Your task to perform on an android device: Open Google Chrome and click the shortcut for Amazon.com Image 0: 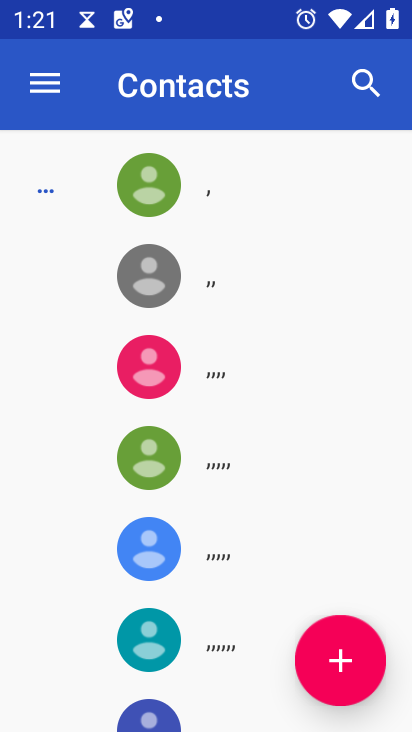
Step 0: press home button
Your task to perform on an android device: Open Google Chrome and click the shortcut for Amazon.com Image 1: 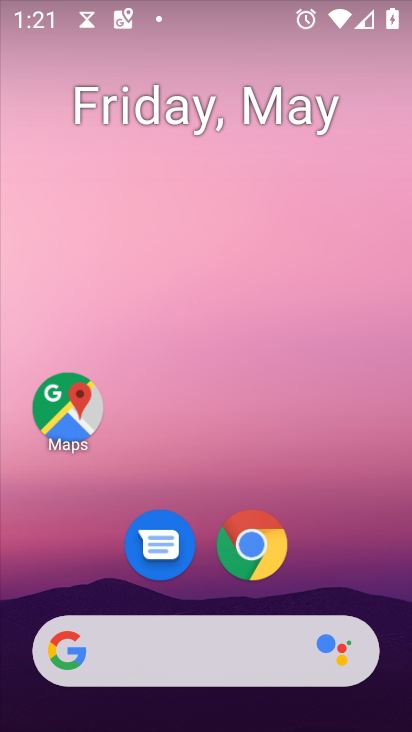
Step 1: click (238, 540)
Your task to perform on an android device: Open Google Chrome and click the shortcut for Amazon.com Image 2: 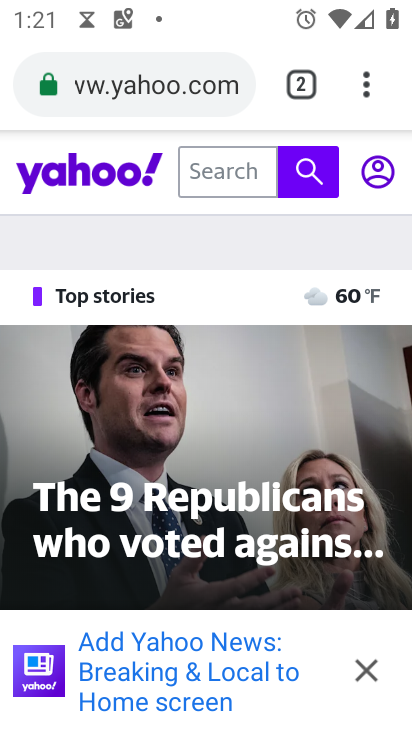
Step 2: click (307, 75)
Your task to perform on an android device: Open Google Chrome and click the shortcut for Amazon.com Image 3: 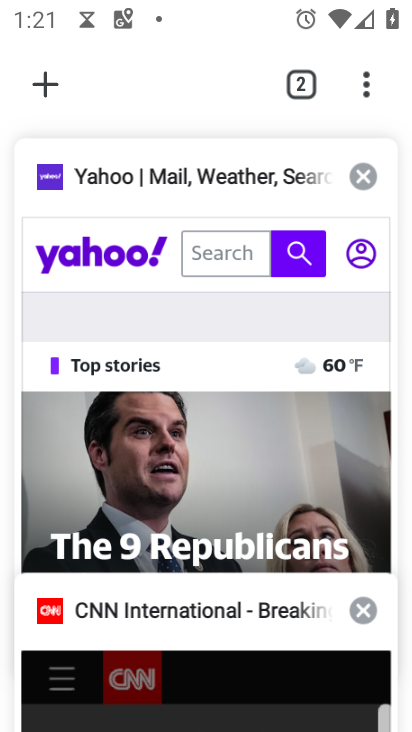
Step 3: click (49, 77)
Your task to perform on an android device: Open Google Chrome and click the shortcut for Amazon.com Image 4: 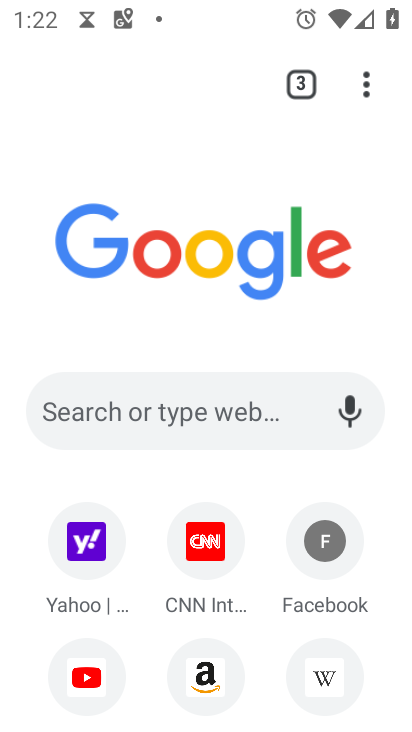
Step 4: click (208, 685)
Your task to perform on an android device: Open Google Chrome and click the shortcut for Amazon.com Image 5: 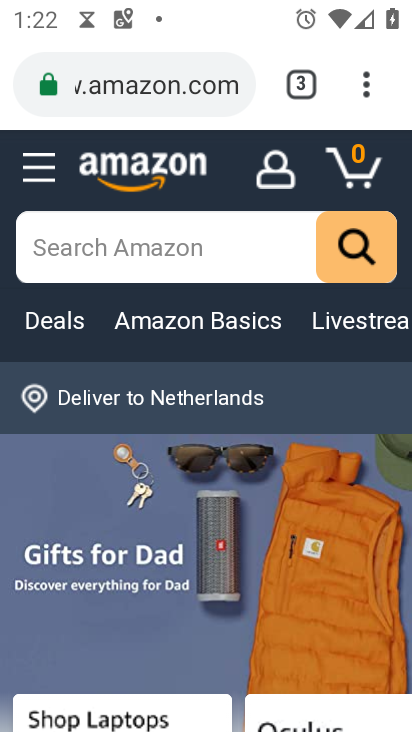
Step 5: task complete